Your task to perform on an android device: Go to calendar. Show me events next week Image 0: 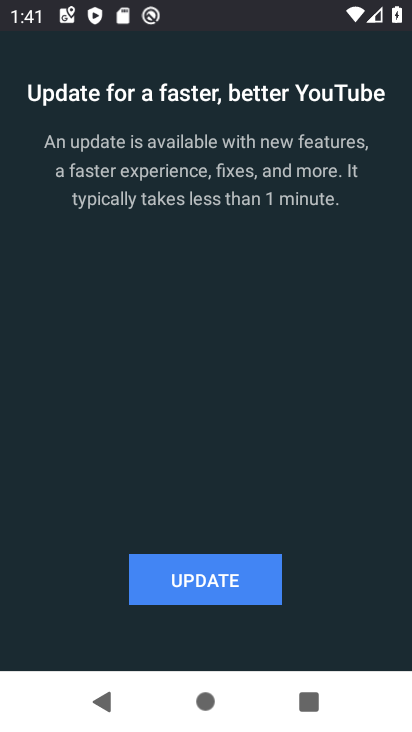
Step 0: press home button
Your task to perform on an android device: Go to calendar. Show me events next week Image 1: 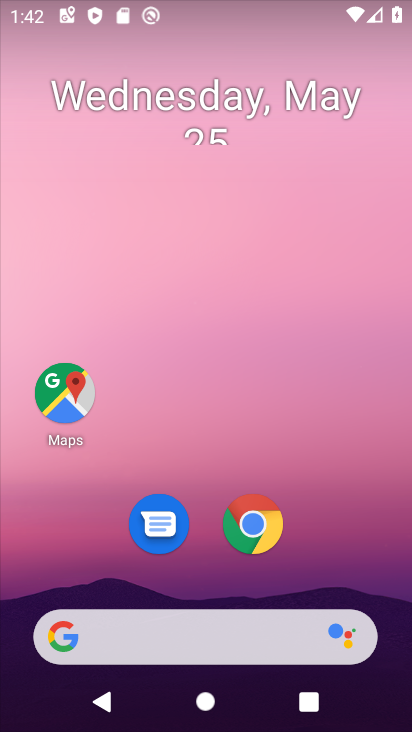
Step 1: drag from (206, 460) to (264, 23)
Your task to perform on an android device: Go to calendar. Show me events next week Image 2: 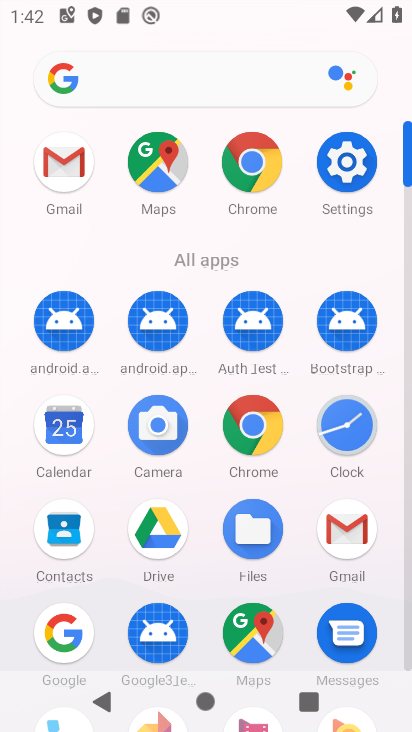
Step 2: click (68, 420)
Your task to perform on an android device: Go to calendar. Show me events next week Image 3: 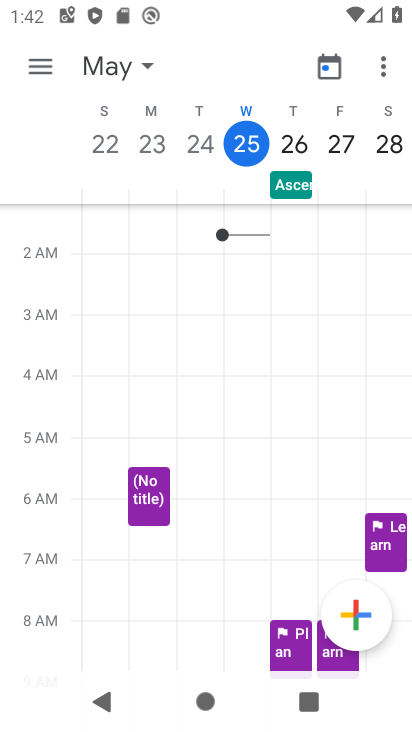
Step 3: task complete